Your task to perform on an android device: Go to ESPN.com Image 0: 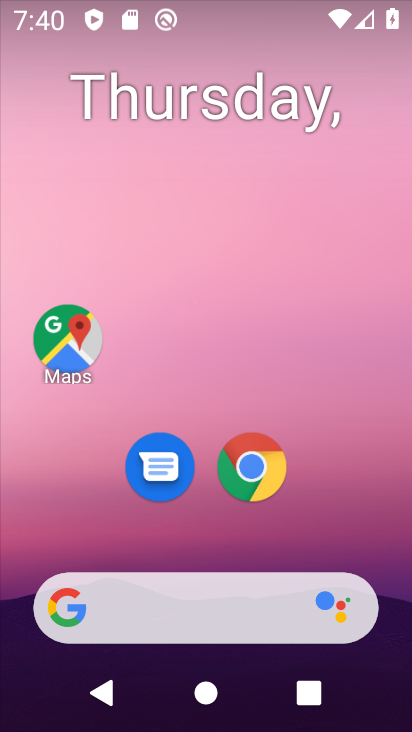
Step 0: drag from (186, 396) to (193, 130)
Your task to perform on an android device: Go to ESPN.com Image 1: 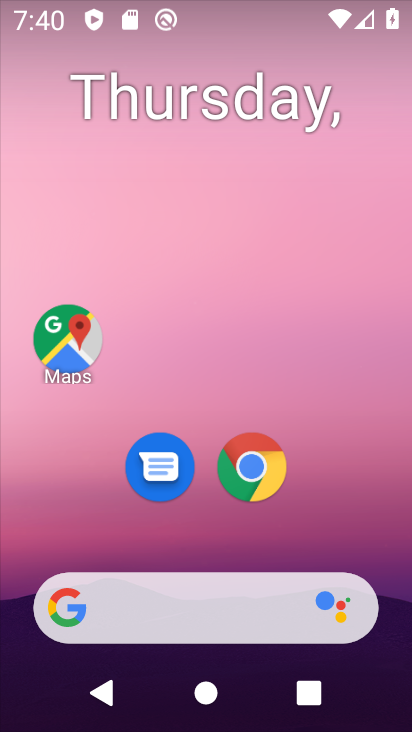
Step 1: click (252, 474)
Your task to perform on an android device: Go to ESPN.com Image 2: 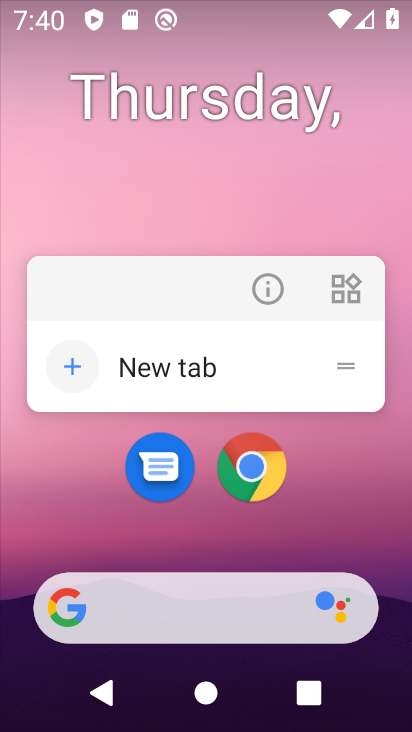
Step 2: click (268, 284)
Your task to perform on an android device: Go to ESPN.com Image 3: 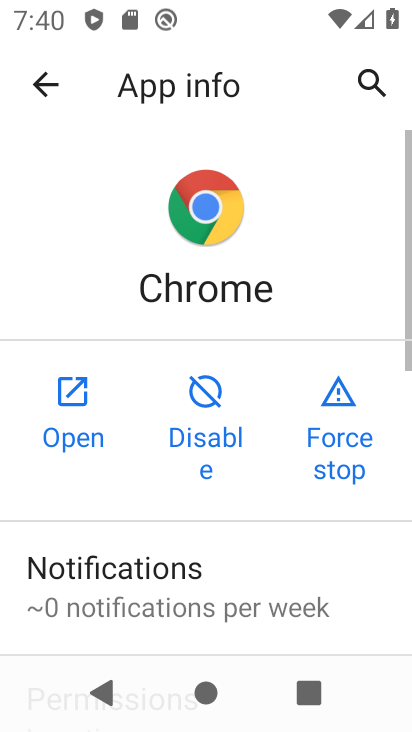
Step 3: click (61, 403)
Your task to perform on an android device: Go to ESPN.com Image 4: 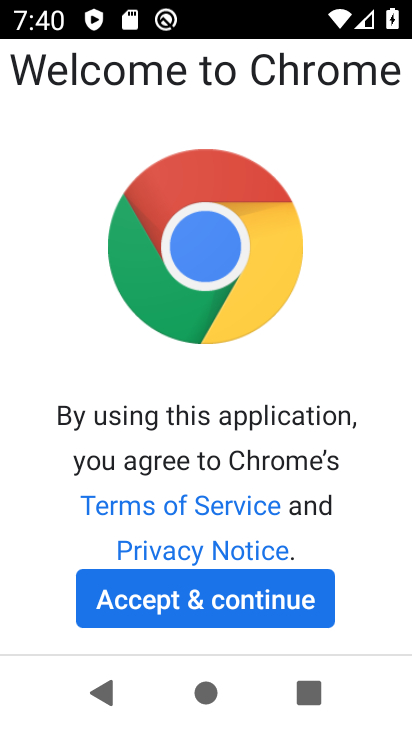
Step 4: click (179, 603)
Your task to perform on an android device: Go to ESPN.com Image 5: 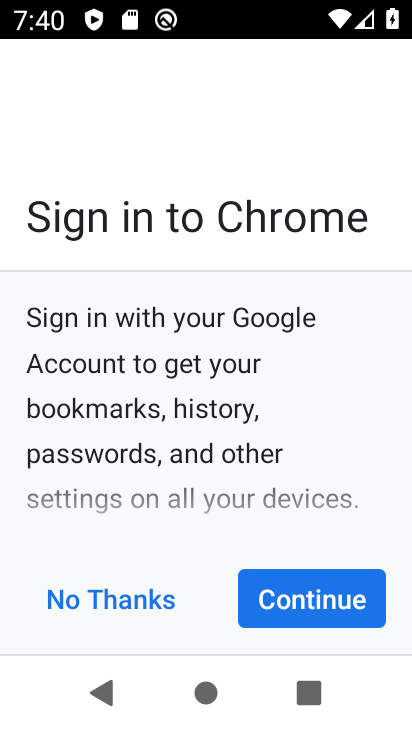
Step 5: click (322, 622)
Your task to perform on an android device: Go to ESPN.com Image 6: 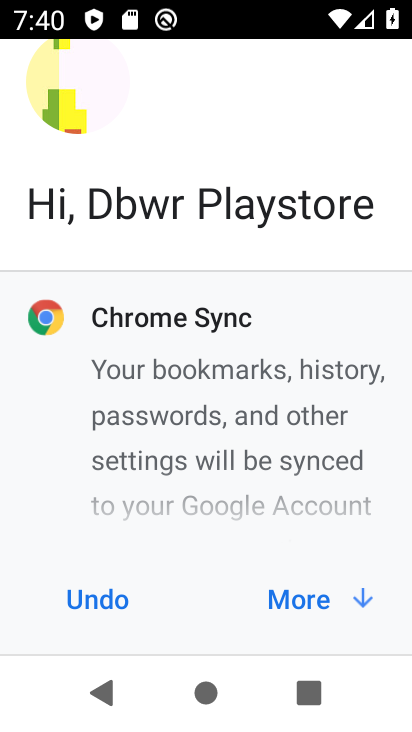
Step 6: click (319, 601)
Your task to perform on an android device: Go to ESPN.com Image 7: 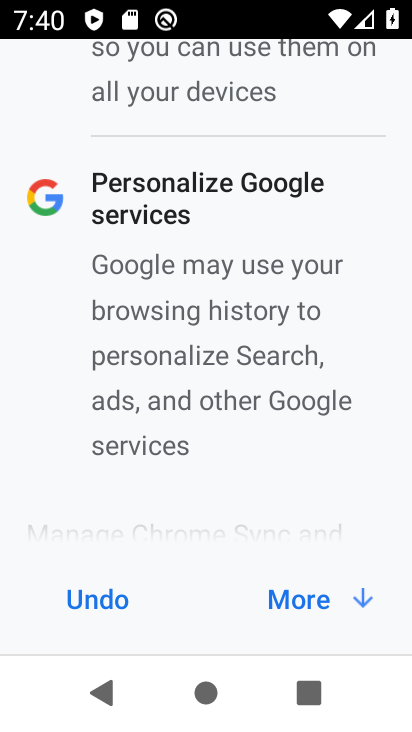
Step 7: click (304, 591)
Your task to perform on an android device: Go to ESPN.com Image 8: 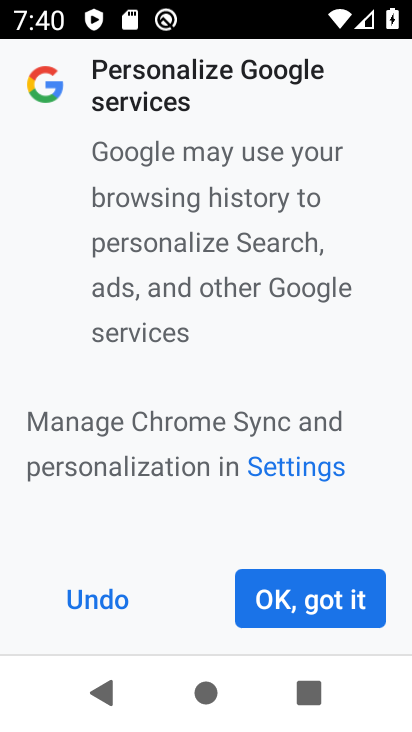
Step 8: click (333, 621)
Your task to perform on an android device: Go to ESPN.com Image 9: 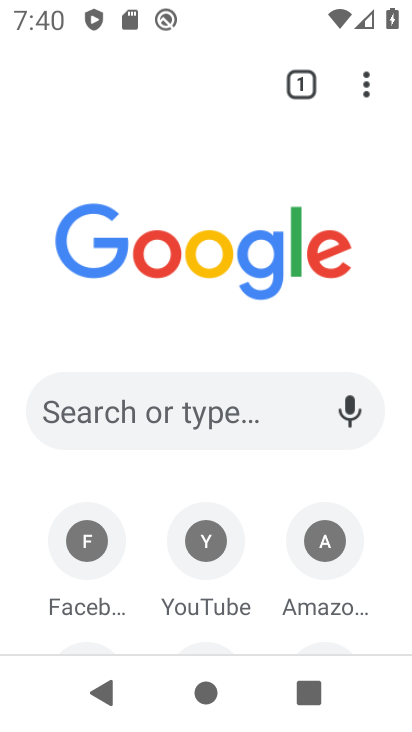
Step 9: click (180, 86)
Your task to perform on an android device: Go to ESPN.com Image 10: 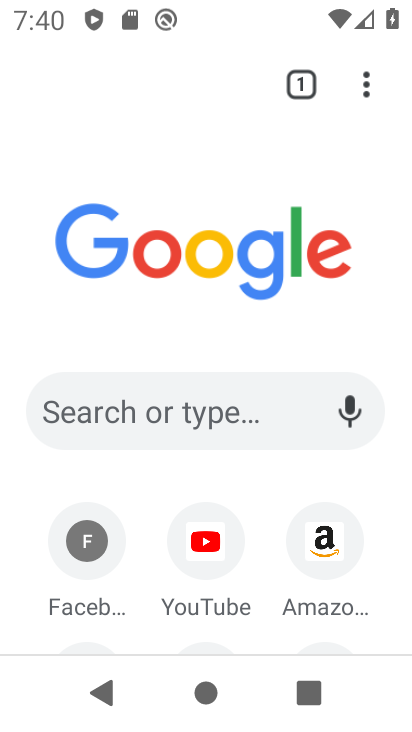
Step 10: click (117, 410)
Your task to perform on an android device: Go to ESPN.com Image 11: 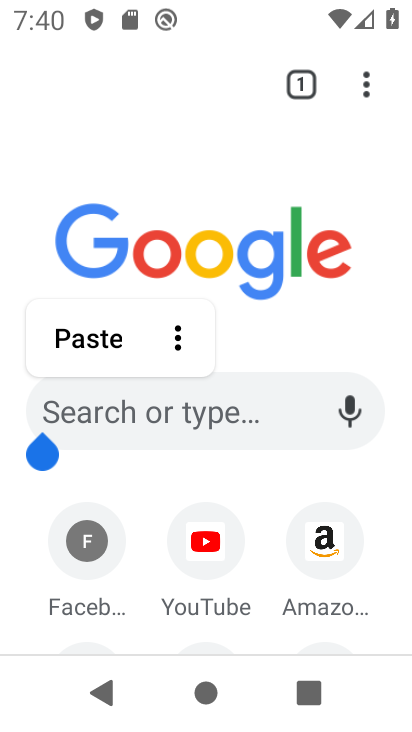
Step 11: click (126, 413)
Your task to perform on an android device: Go to ESPN.com Image 12: 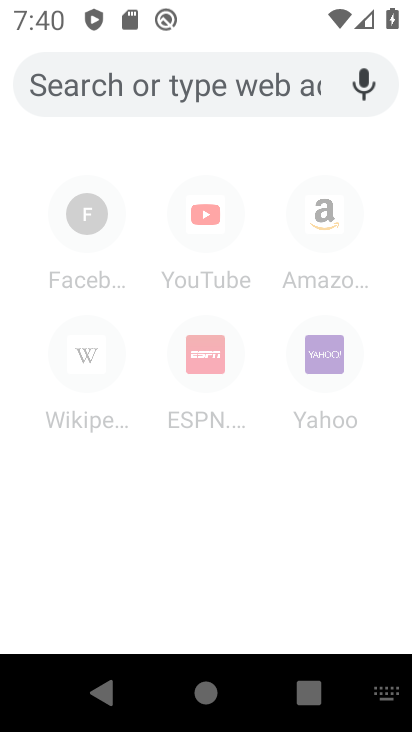
Step 12: type "ESPN.c com"
Your task to perform on an android device: Go to ESPN.com Image 13: 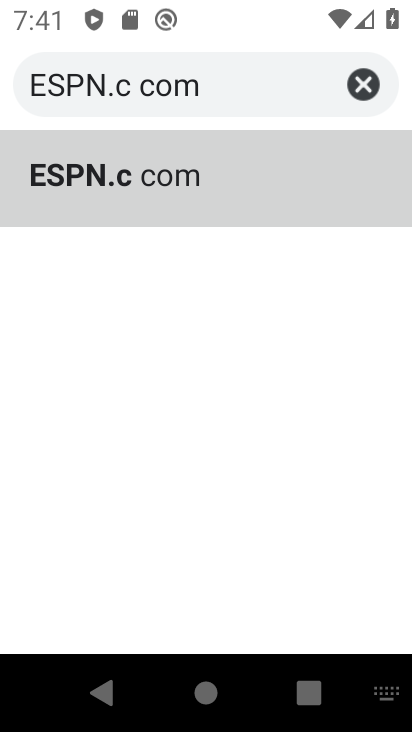
Step 13: click (136, 89)
Your task to perform on an android device: Go to ESPN.com Image 14: 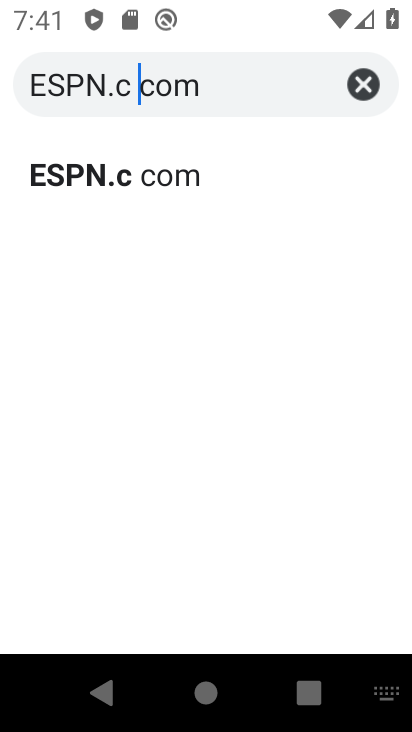
Step 14: click (355, 77)
Your task to perform on an android device: Go to ESPN.com Image 15: 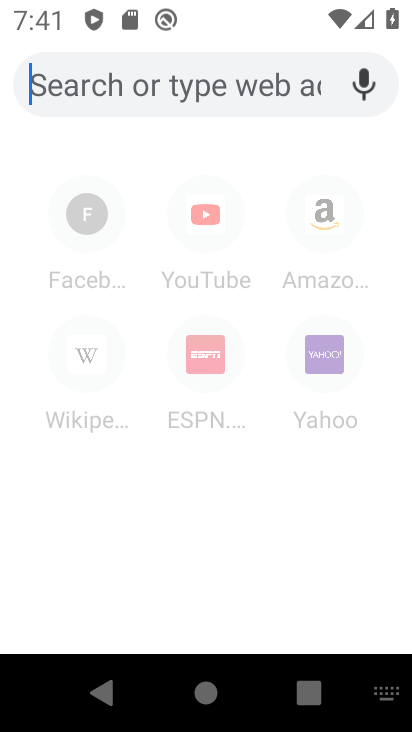
Step 15: click (216, 81)
Your task to perform on an android device: Go to ESPN.com Image 16: 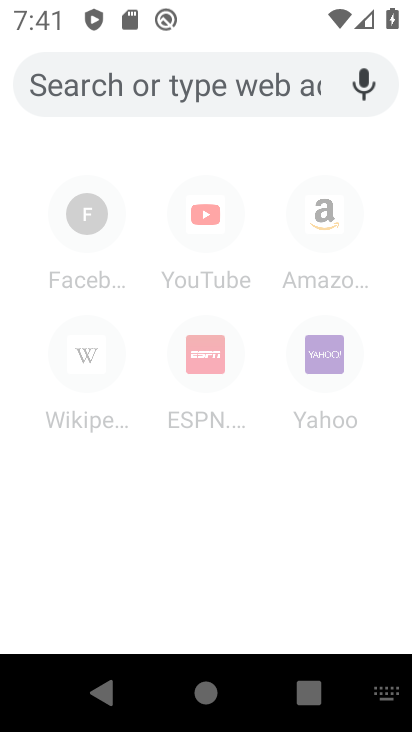
Step 16: type "ESPN.com"
Your task to perform on an android device: Go to ESPN.com Image 17: 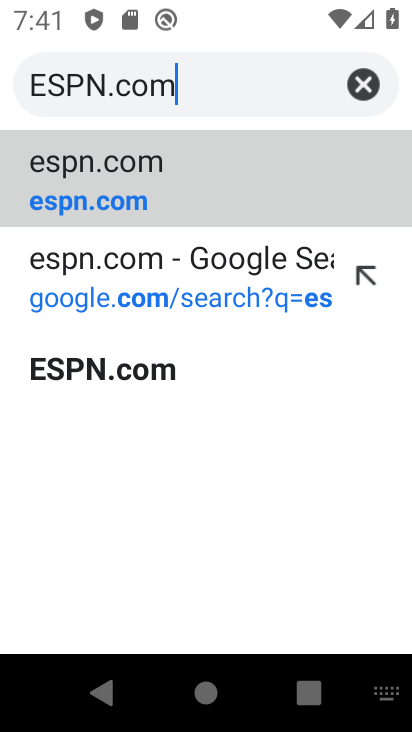
Step 17: click (124, 198)
Your task to perform on an android device: Go to ESPN.com Image 18: 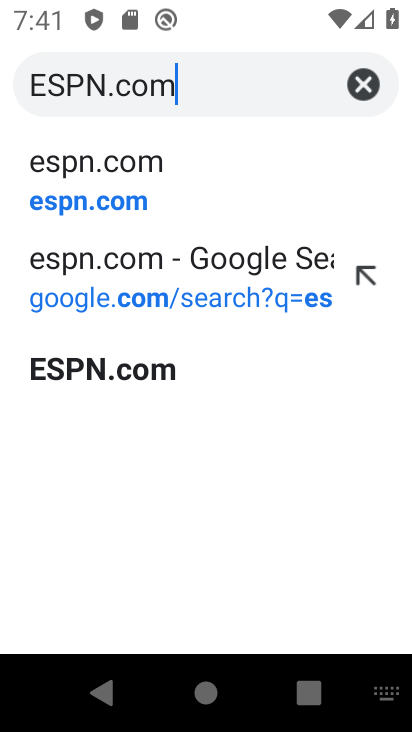
Step 18: click (137, 185)
Your task to perform on an android device: Go to ESPN.com Image 19: 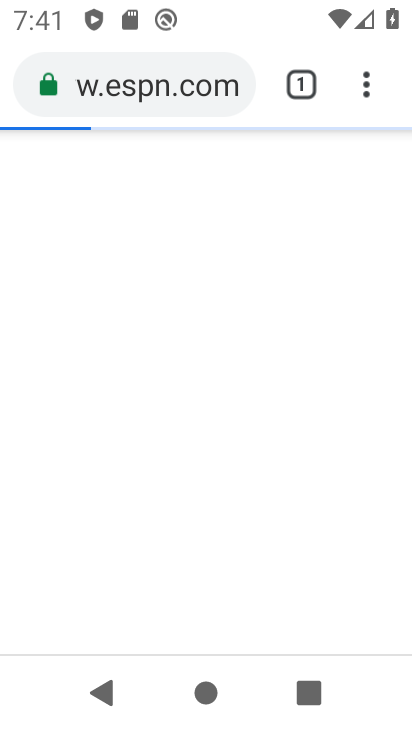
Step 19: task complete